Your task to perform on an android device: open the mobile data screen to see how much data has been used Image 0: 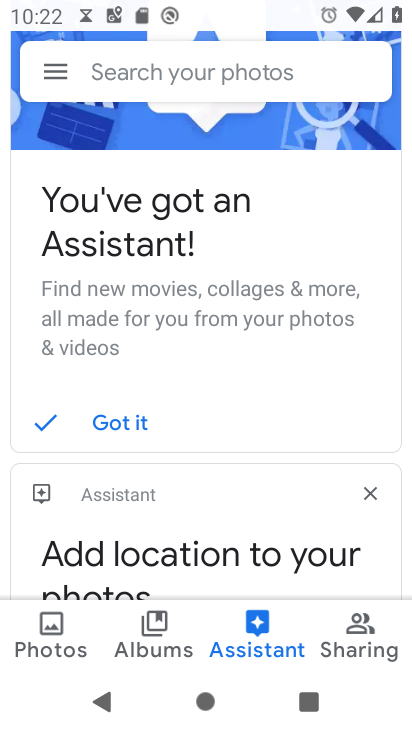
Step 0: press home button
Your task to perform on an android device: open the mobile data screen to see how much data has been used Image 1: 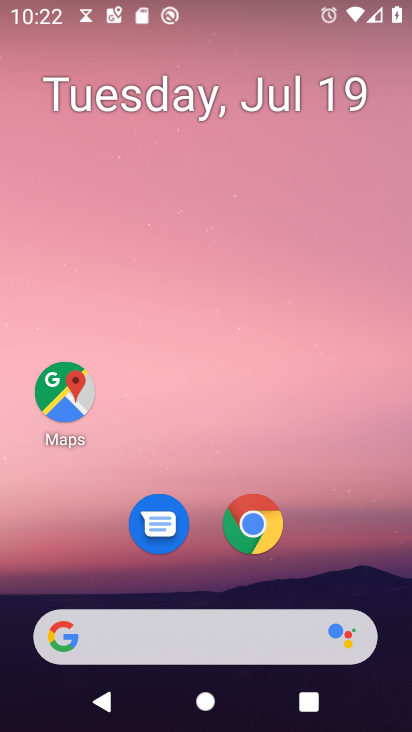
Step 1: drag from (154, 626) to (304, 193)
Your task to perform on an android device: open the mobile data screen to see how much data has been used Image 2: 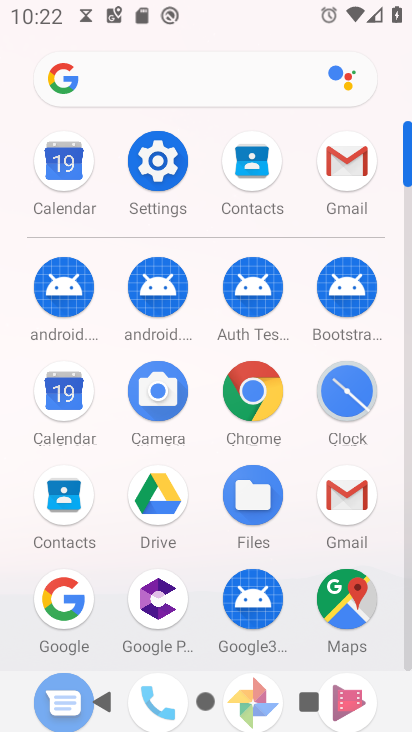
Step 2: click (163, 160)
Your task to perform on an android device: open the mobile data screen to see how much data has been used Image 3: 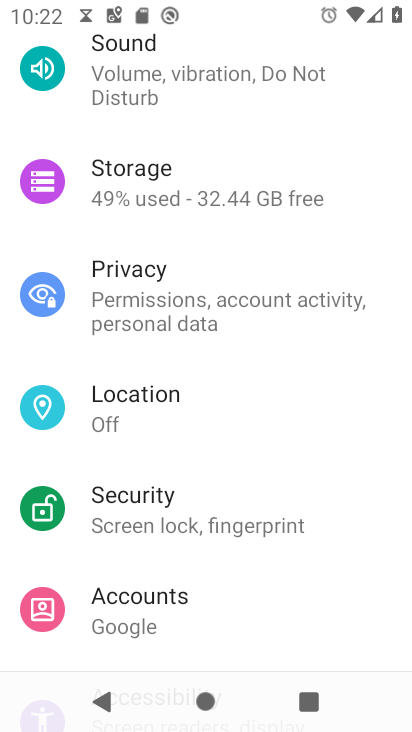
Step 3: drag from (302, 134) to (273, 643)
Your task to perform on an android device: open the mobile data screen to see how much data has been used Image 4: 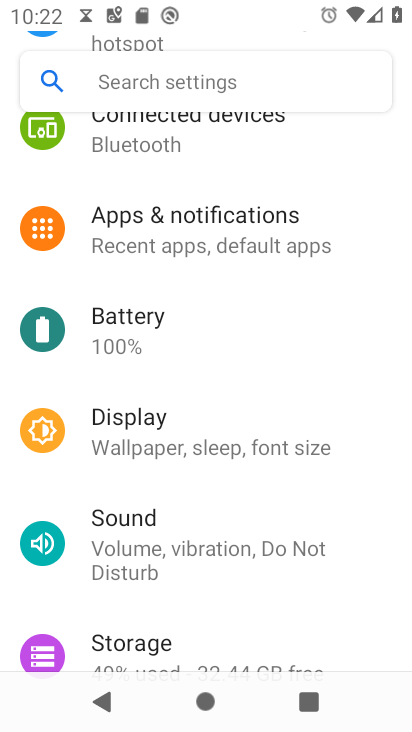
Step 4: drag from (306, 174) to (253, 669)
Your task to perform on an android device: open the mobile data screen to see how much data has been used Image 5: 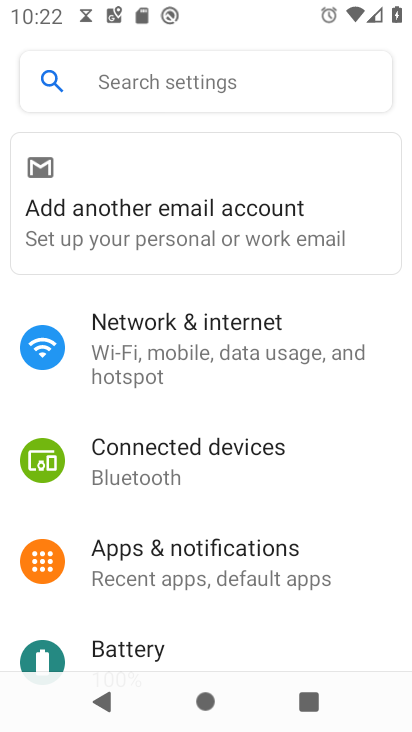
Step 5: click (206, 340)
Your task to perform on an android device: open the mobile data screen to see how much data has been used Image 6: 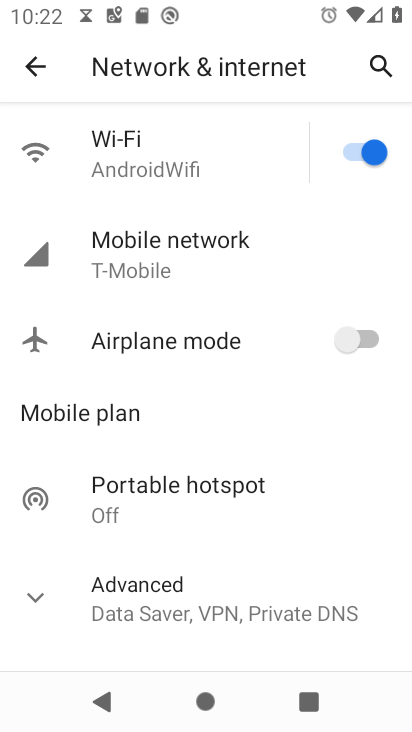
Step 6: click (195, 251)
Your task to perform on an android device: open the mobile data screen to see how much data has been used Image 7: 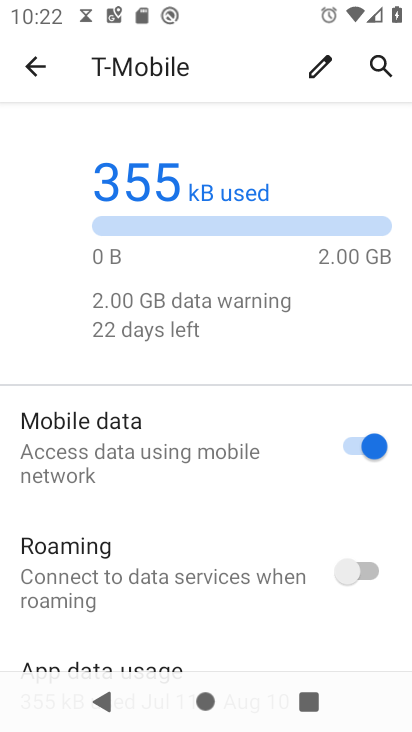
Step 7: task complete